Your task to perform on an android device: Search for sushi restaurants on Maps Image 0: 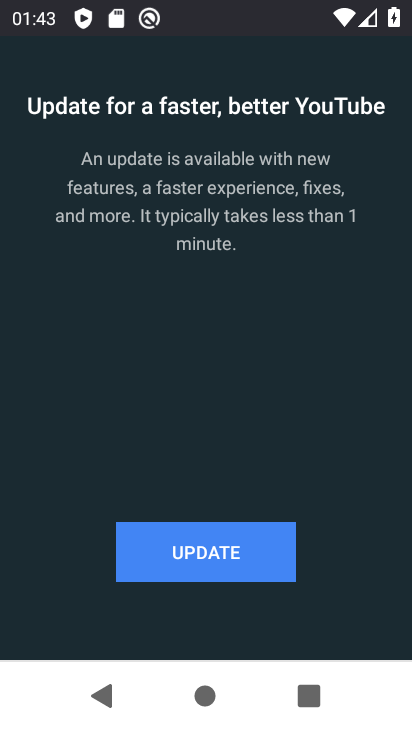
Step 0: press home button
Your task to perform on an android device: Search for sushi restaurants on Maps Image 1: 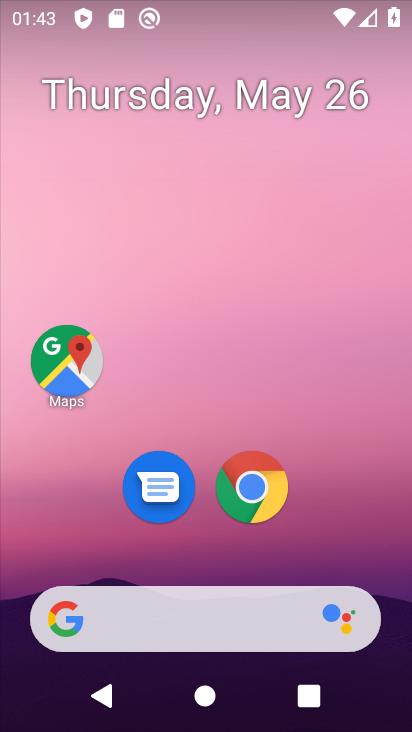
Step 1: click (53, 352)
Your task to perform on an android device: Search for sushi restaurants on Maps Image 2: 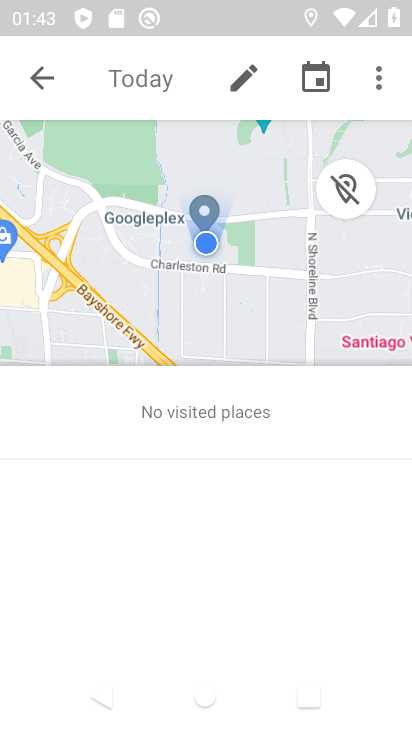
Step 2: click (59, 76)
Your task to perform on an android device: Search for sushi restaurants on Maps Image 3: 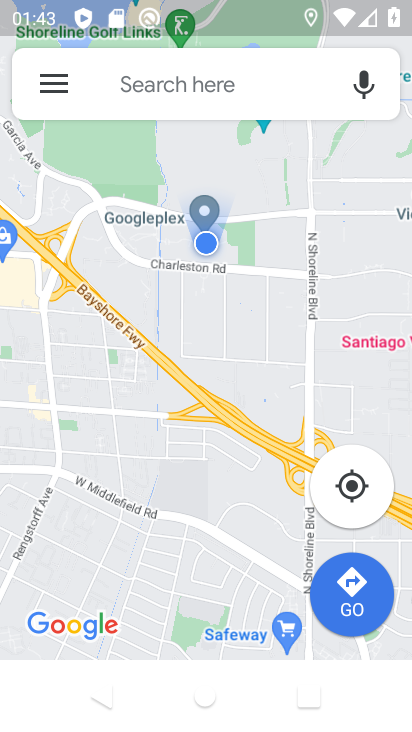
Step 3: click (190, 102)
Your task to perform on an android device: Search for sushi restaurants on Maps Image 4: 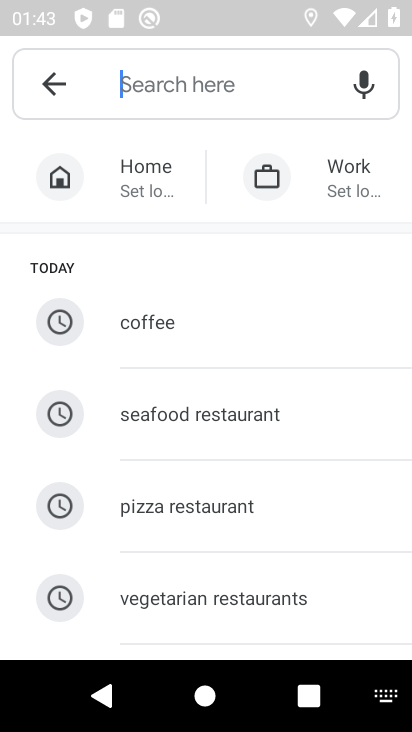
Step 4: type "sushi restaurants"
Your task to perform on an android device: Search for sushi restaurants on Maps Image 5: 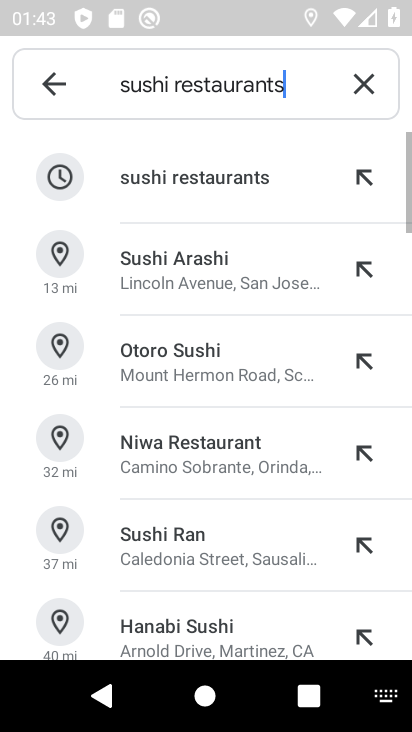
Step 5: click (195, 187)
Your task to perform on an android device: Search for sushi restaurants on Maps Image 6: 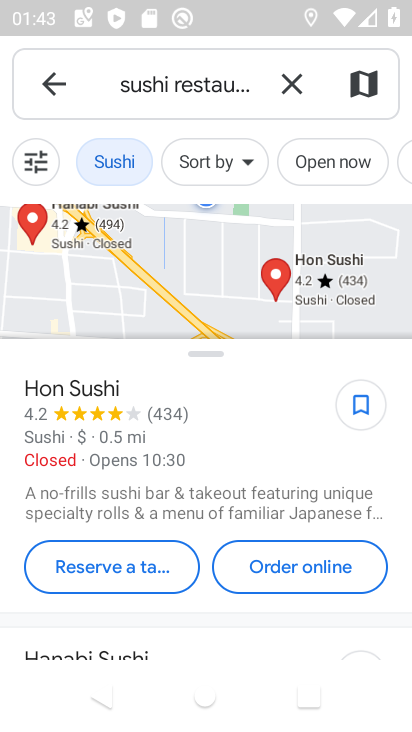
Step 6: task complete